Your task to perform on an android device: check storage Image 0: 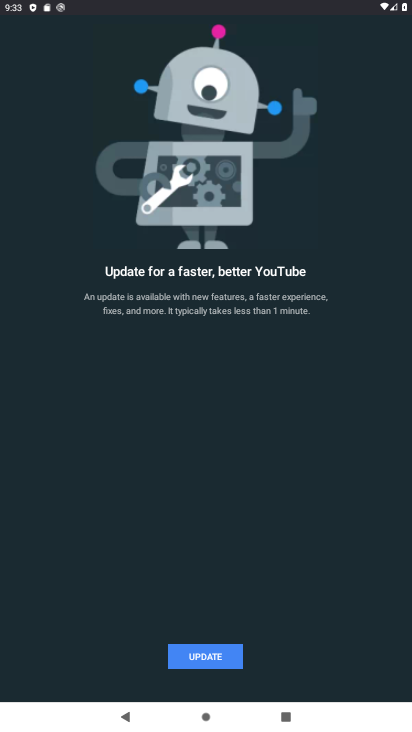
Step 0: drag from (222, 623) to (236, 99)
Your task to perform on an android device: check storage Image 1: 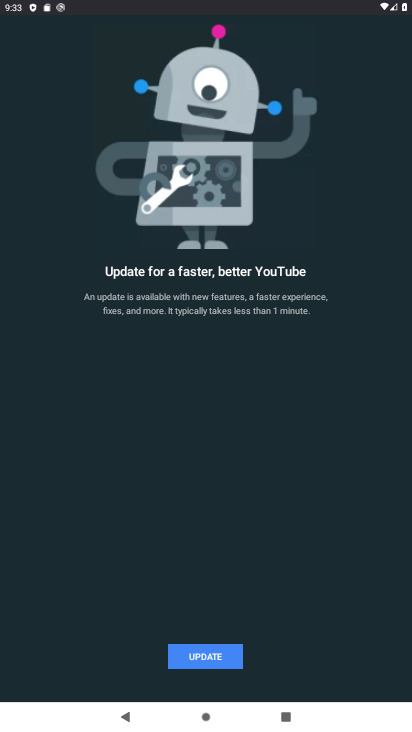
Step 1: press home button
Your task to perform on an android device: check storage Image 2: 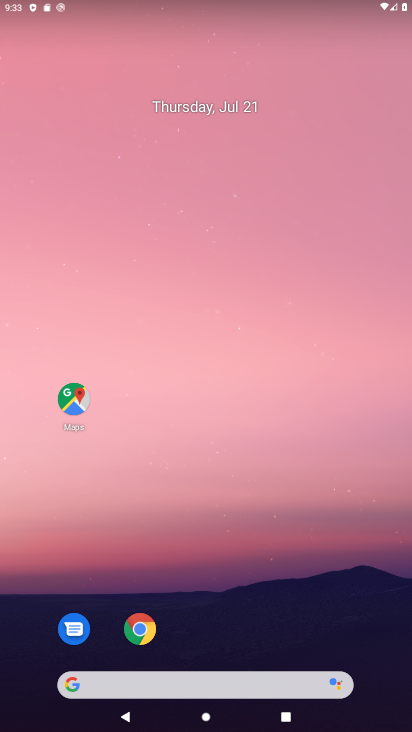
Step 2: drag from (259, 643) to (304, 123)
Your task to perform on an android device: check storage Image 3: 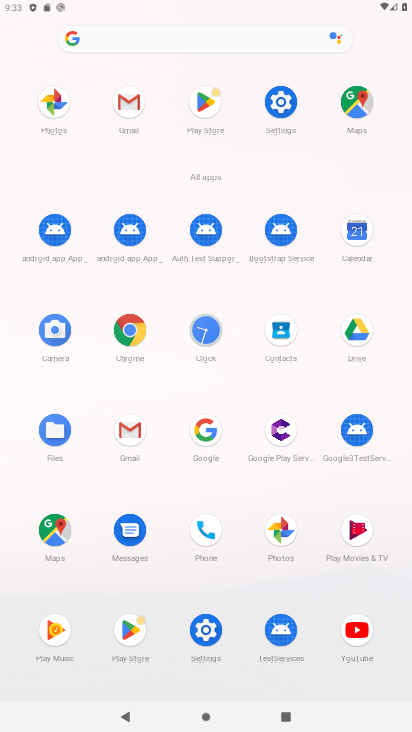
Step 3: click (289, 107)
Your task to perform on an android device: check storage Image 4: 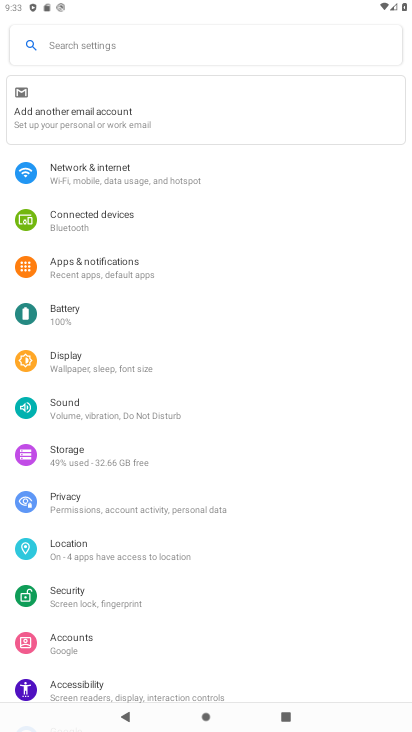
Step 4: click (85, 451)
Your task to perform on an android device: check storage Image 5: 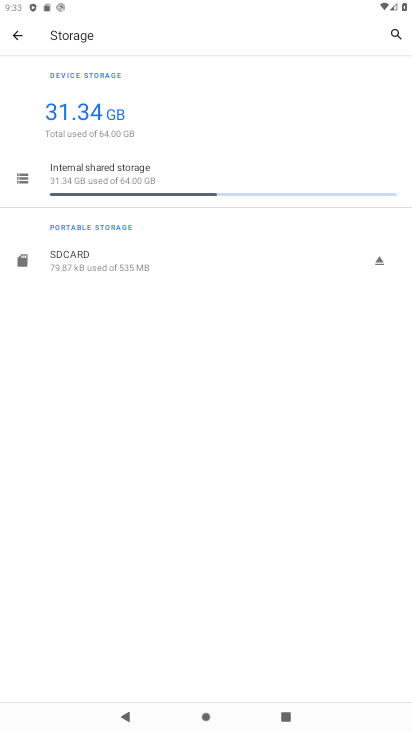
Step 5: task complete